Your task to perform on an android device: turn off priority inbox in the gmail app Image 0: 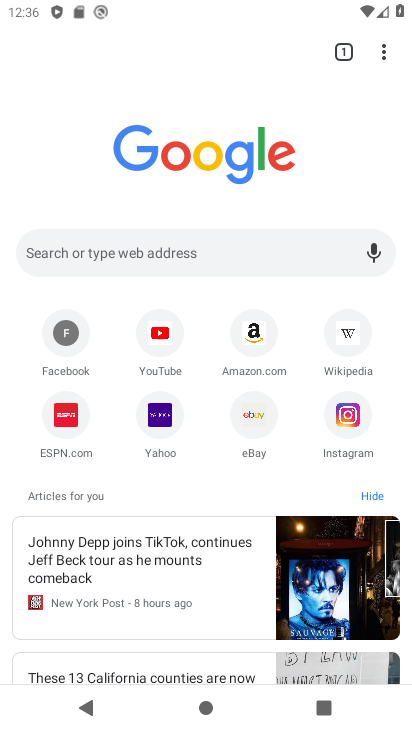
Step 0: press home button
Your task to perform on an android device: turn off priority inbox in the gmail app Image 1: 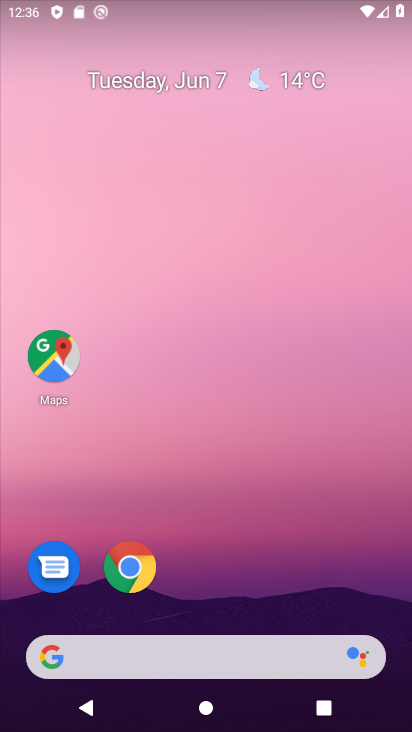
Step 1: drag from (223, 638) to (282, 12)
Your task to perform on an android device: turn off priority inbox in the gmail app Image 2: 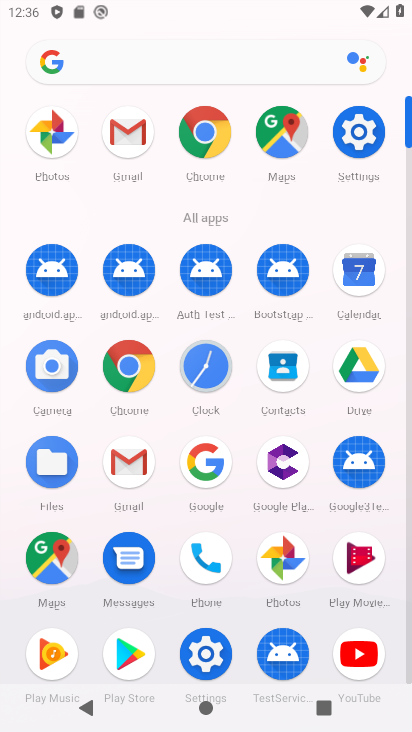
Step 2: click (132, 460)
Your task to perform on an android device: turn off priority inbox in the gmail app Image 3: 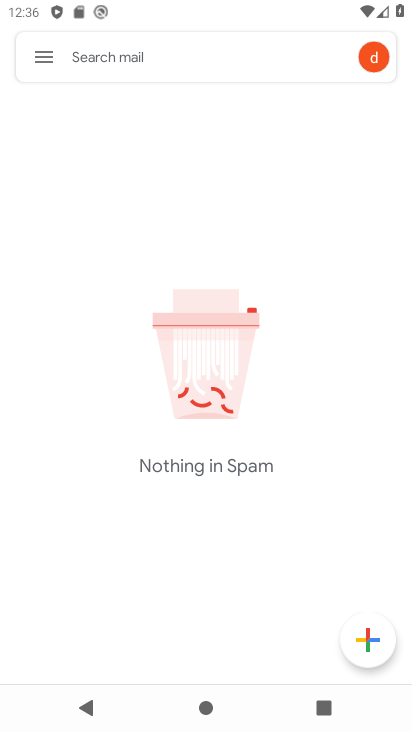
Step 3: click (40, 49)
Your task to perform on an android device: turn off priority inbox in the gmail app Image 4: 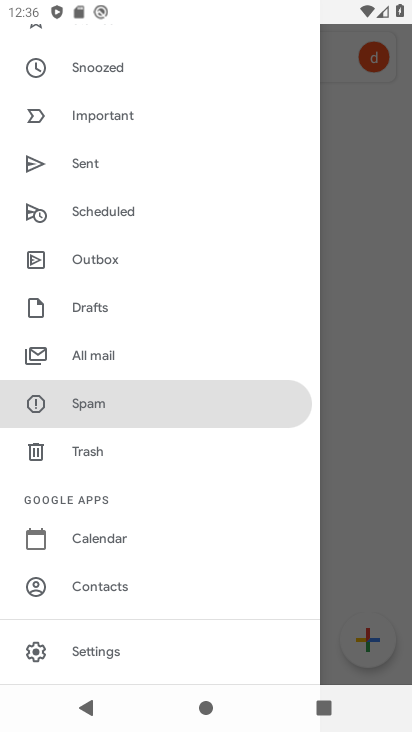
Step 4: click (100, 645)
Your task to perform on an android device: turn off priority inbox in the gmail app Image 5: 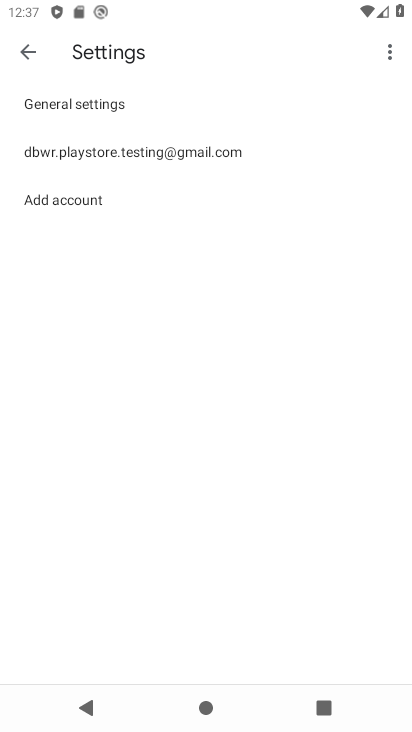
Step 5: click (200, 159)
Your task to perform on an android device: turn off priority inbox in the gmail app Image 6: 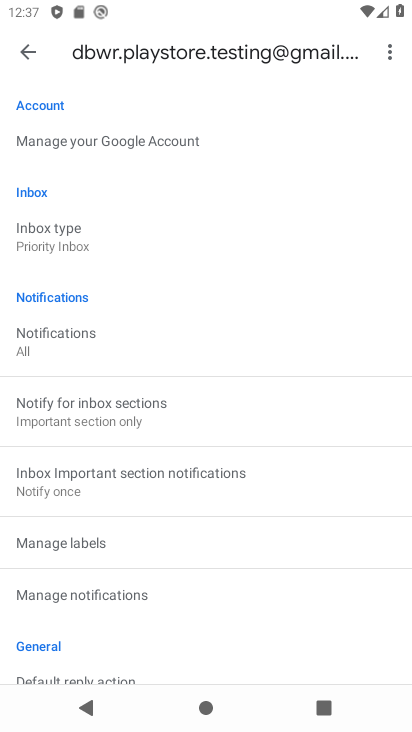
Step 6: click (63, 226)
Your task to perform on an android device: turn off priority inbox in the gmail app Image 7: 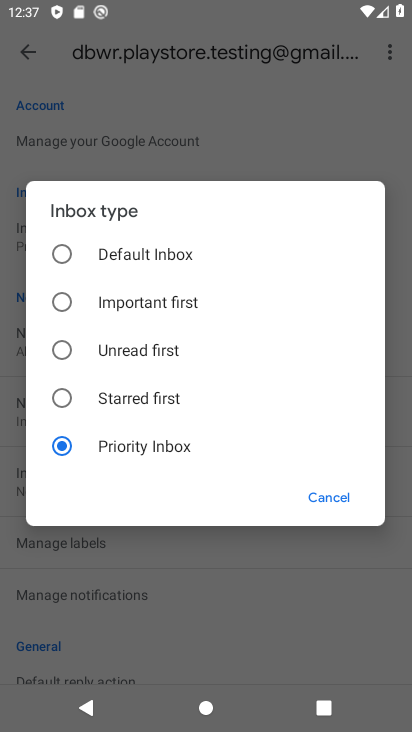
Step 7: click (175, 263)
Your task to perform on an android device: turn off priority inbox in the gmail app Image 8: 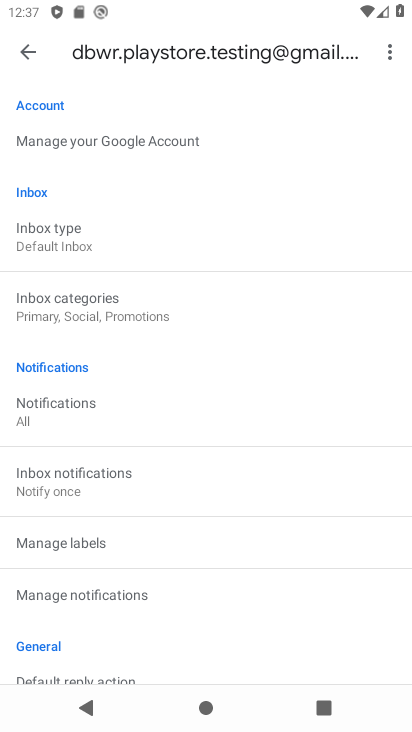
Step 8: task complete